Your task to perform on an android device: Go to Yahoo.com Image 0: 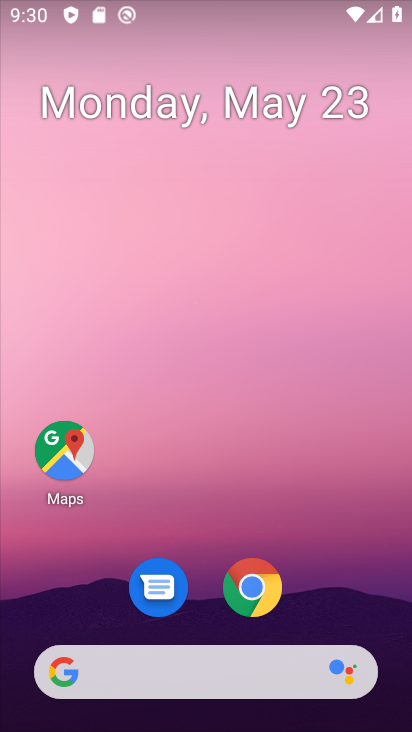
Step 0: drag from (347, 563) to (313, 208)
Your task to perform on an android device: Go to Yahoo.com Image 1: 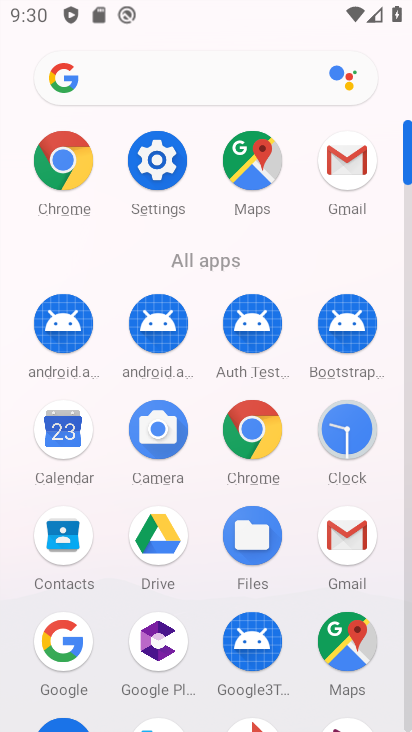
Step 1: click (54, 167)
Your task to perform on an android device: Go to Yahoo.com Image 2: 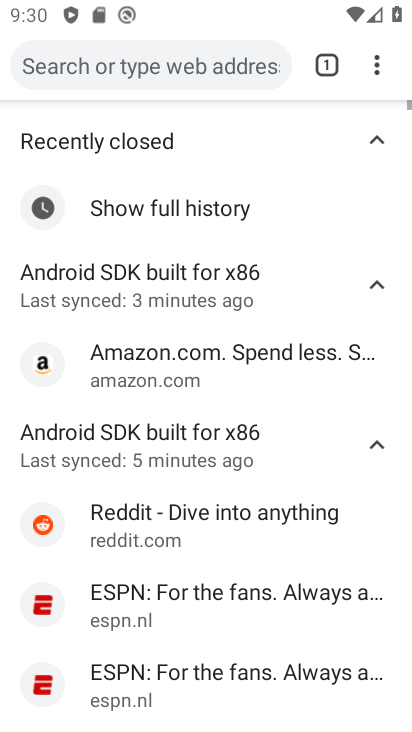
Step 2: click (155, 66)
Your task to perform on an android device: Go to Yahoo.com Image 3: 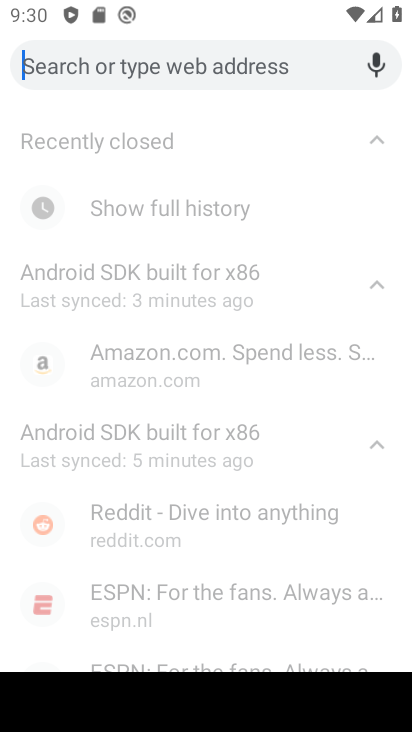
Step 3: type "yahoo"
Your task to perform on an android device: Go to Yahoo.com Image 4: 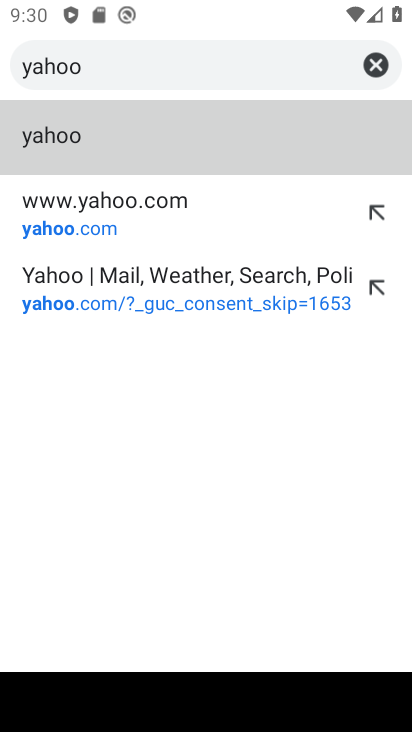
Step 4: click (50, 214)
Your task to perform on an android device: Go to Yahoo.com Image 5: 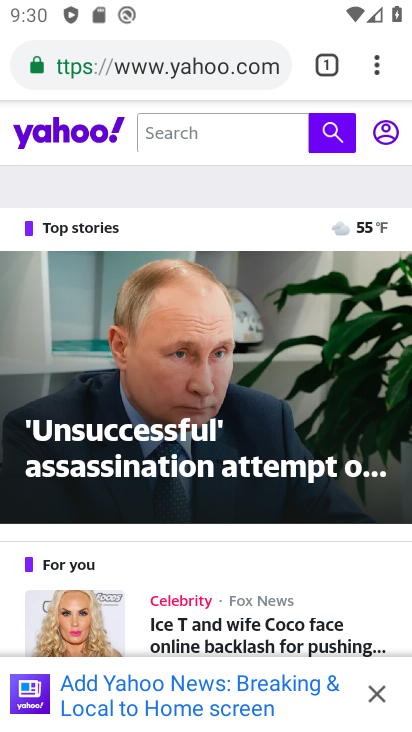
Step 5: task complete